Your task to perform on an android device: turn off notifications in google photos Image 0: 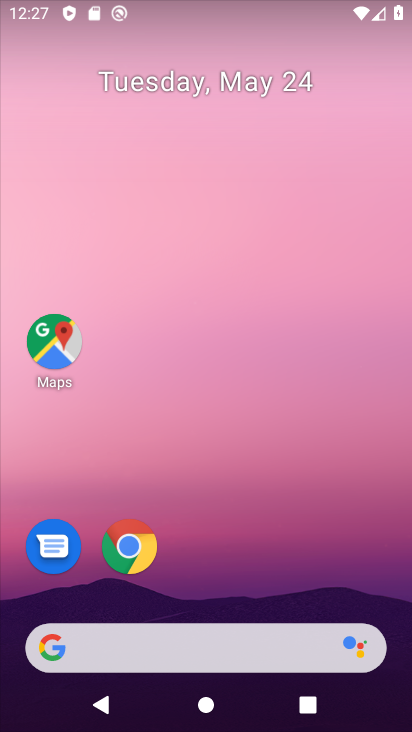
Step 0: drag from (171, 646) to (295, 11)
Your task to perform on an android device: turn off notifications in google photos Image 1: 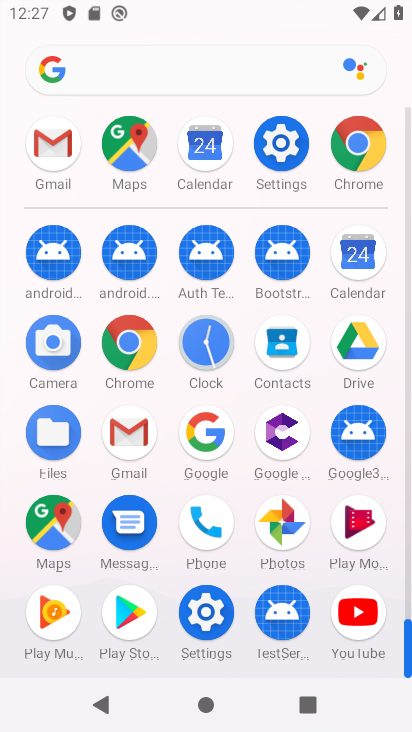
Step 1: click (280, 514)
Your task to perform on an android device: turn off notifications in google photos Image 2: 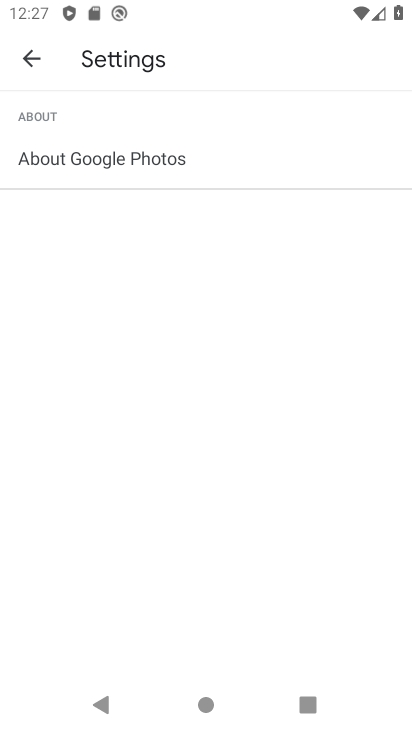
Step 2: press back button
Your task to perform on an android device: turn off notifications in google photos Image 3: 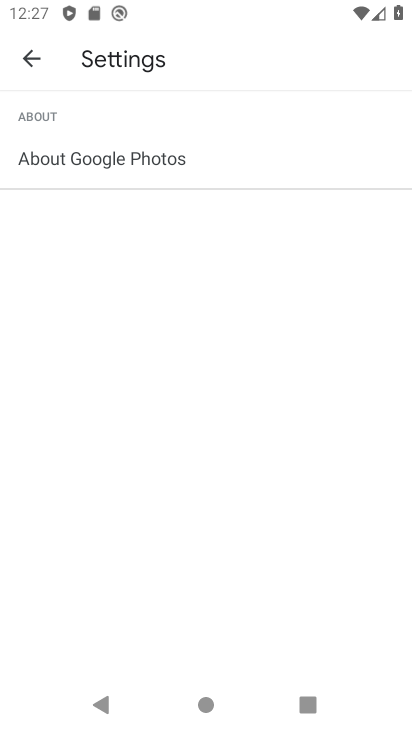
Step 3: press back button
Your task to perform on an android device: turn off notifications in google photos Image 4: 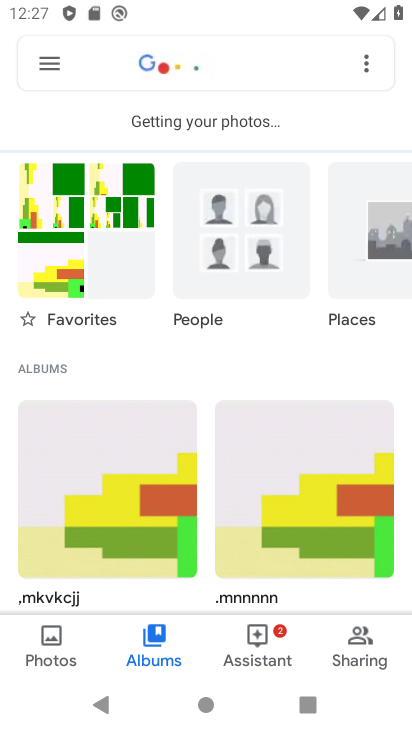
Step 4: click (42, 65)
Your task to perform on an android device: turn off notifications in google photos Image 5: 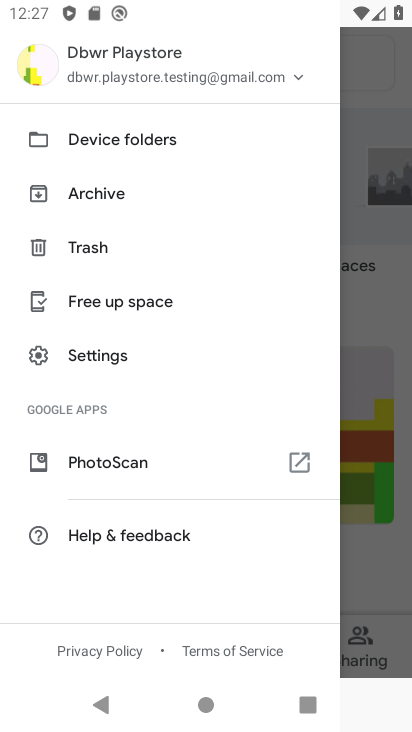
Step 5: click (102, 350)
Your task to perform on an android device: turn off notifications in google photos Image 6: 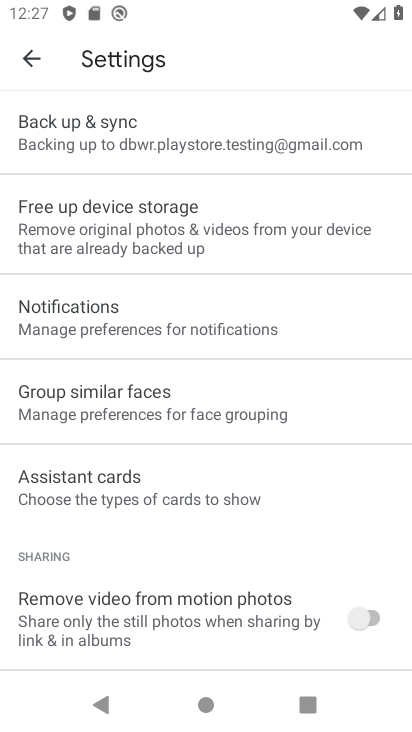
Step 6: click (196, 319)
Your task to perform on an android device: turn off notifications in google photos Image 7: 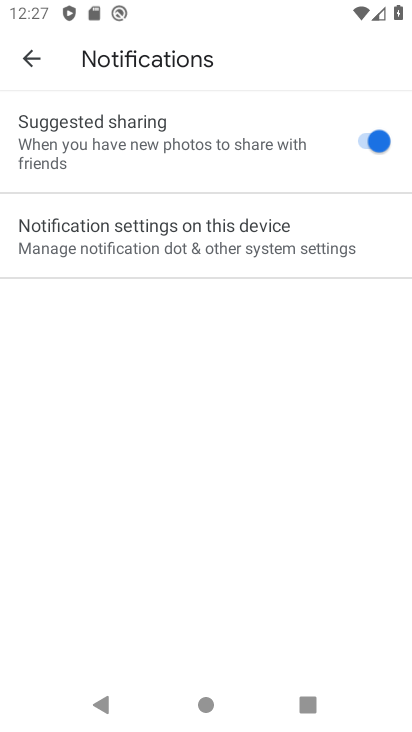
Step 7: click (315, 216)
Your task to perform on an android device: turn off notifications in google photos Image 8: 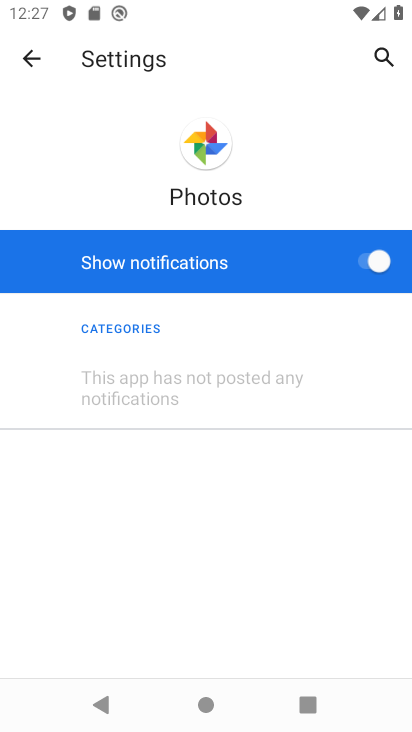
Step 8: click (365, 265)
Your task to perform on an android device: turn off notifications in google photos Image 9: 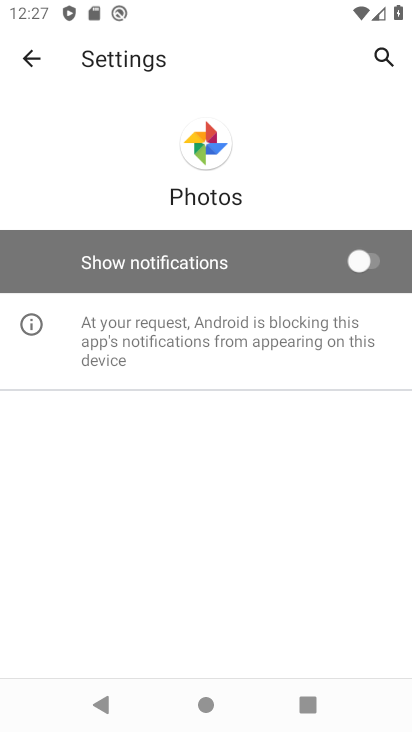
Step 9: task complete